Your task to perform on an android device: turn off improve location accuracy Image 0: 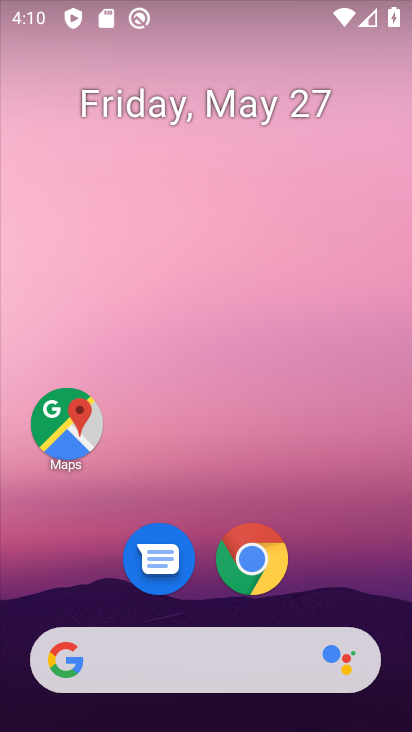
Step 0: drag from (366, 551) to (340, 322)
Your task to perform on an android device: turn off improve location accuracy Image 1: 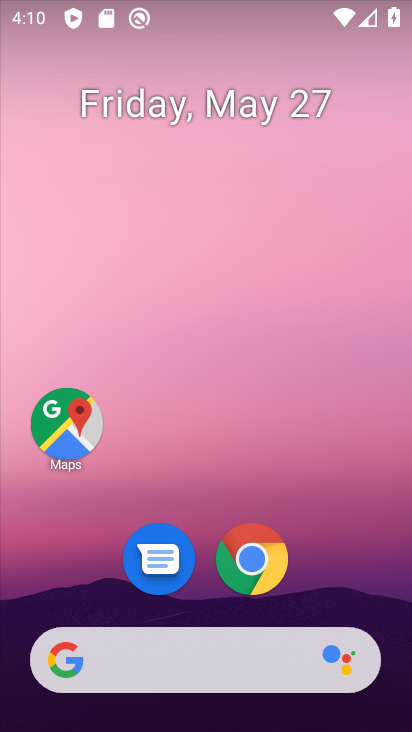
Step 1: drag from (390, 701) to (364, 288)
Your task to perform on an android device: turn off improve location accuracy Image 2: 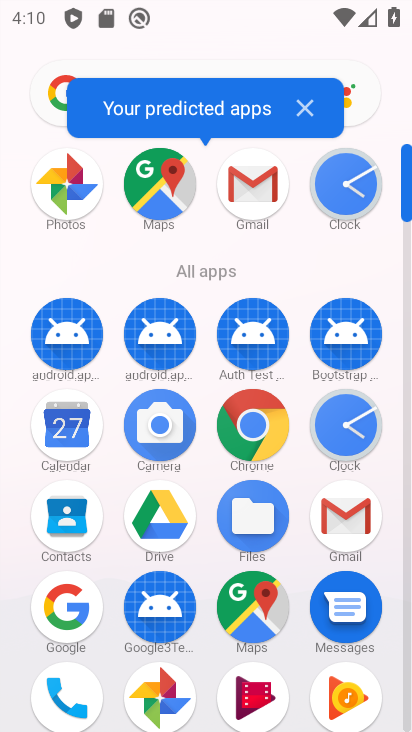
Step 2: drag from (200, 680) to (193, 298)
Your task to perform on an android device: turn off improve location accuracy Image 3: 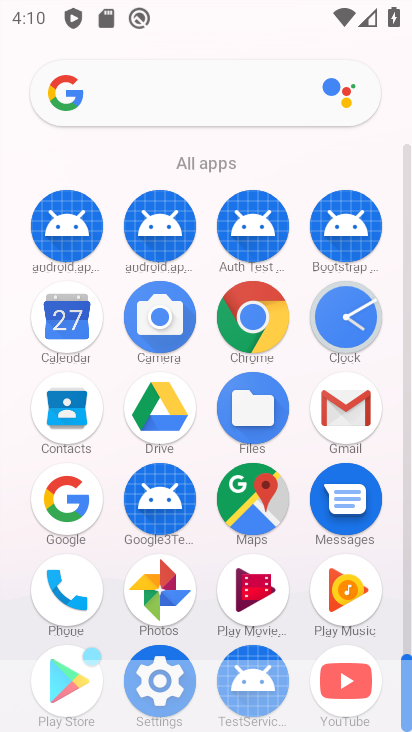
Step 3: click (168, 654)
Your task to perform on an android device: turn off improve location accuracy Image 4: 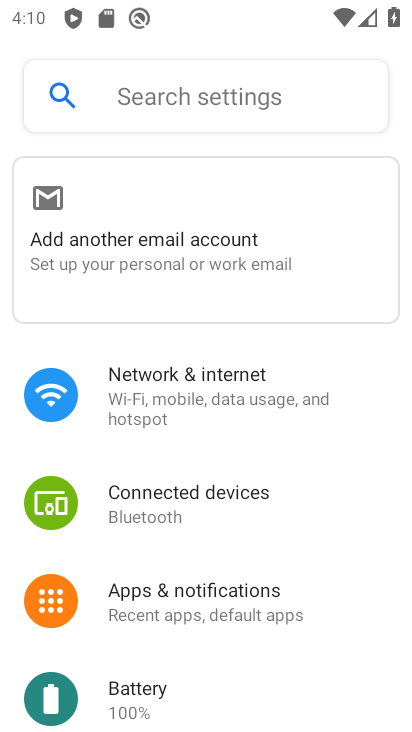
Step 4: drag from (245, 699) to (255, 362)
Your task to perform on an android device: turn off improve location accuracy Image 5: 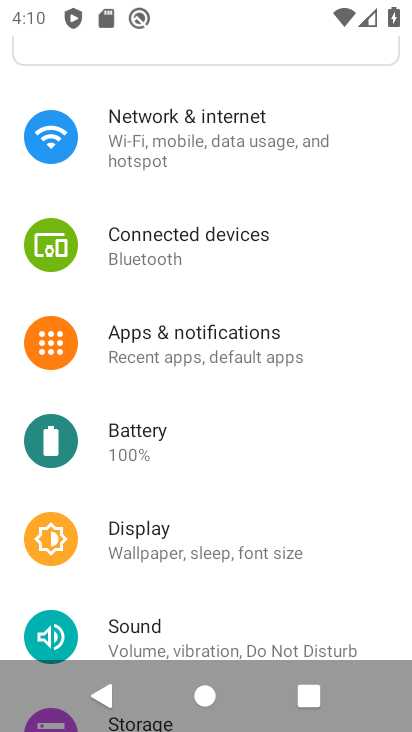
Step 5: drag from (232, 625) to (223, 338)
Your task to perform on an android device: turn off improve location accuracy Image 6: 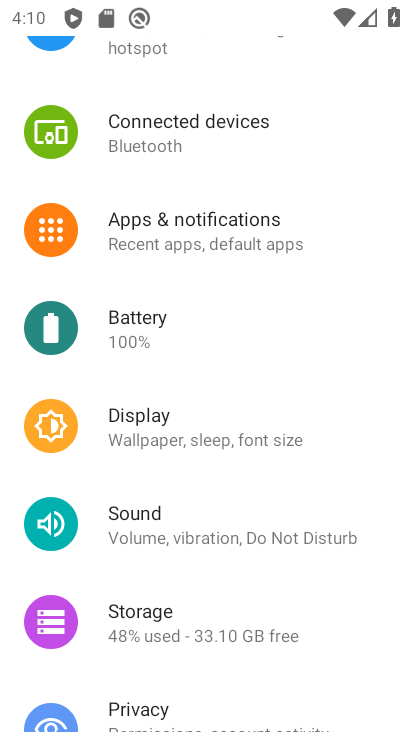
Step 6: drag from (231, 691) to (229, 385)
Your task to perform on an android device: turn off improve location accuracy Image 7: 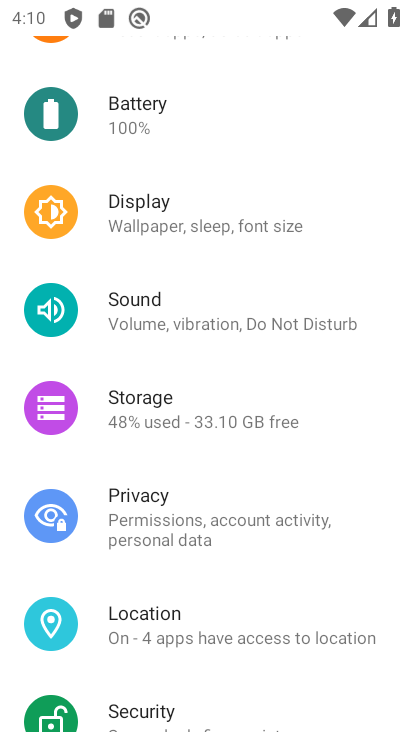
Step 7: click (170, 615)
Your task to perform on an android device: turn off improve location accuracy Image 8: 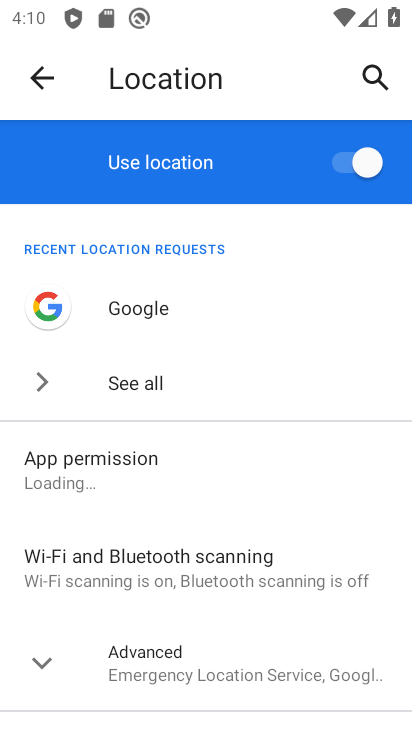
Step 8: drag from (280, 647) to (248, 315)
Your task to perform on an android device: turn off improve location accuracy Image 9: 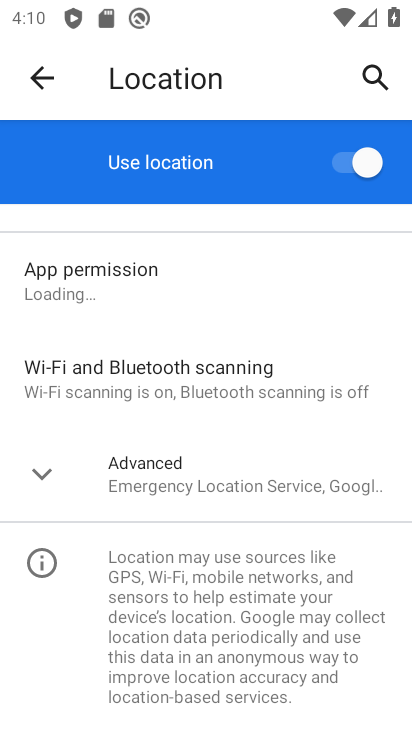
Step 9: click (38, 470)
Your task to perform on an android device: turn off improve location accuracy Image 10: 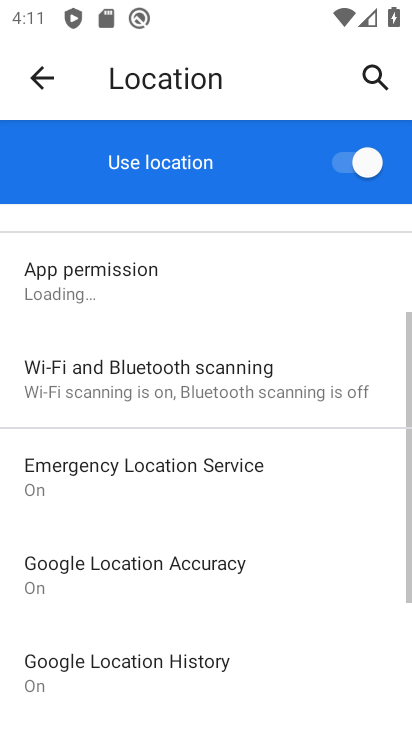
Step 10: drag from (295, 537) to (266, 287)
Your task to perform on an android device: turn off improve location accuracy Image 11: 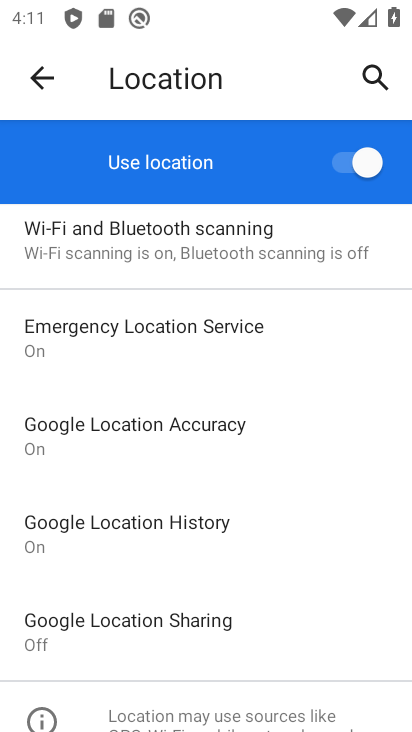
Step 11: click (78, 434)
Your task to perform on an android device: turn off improve location accuracy Image 12: 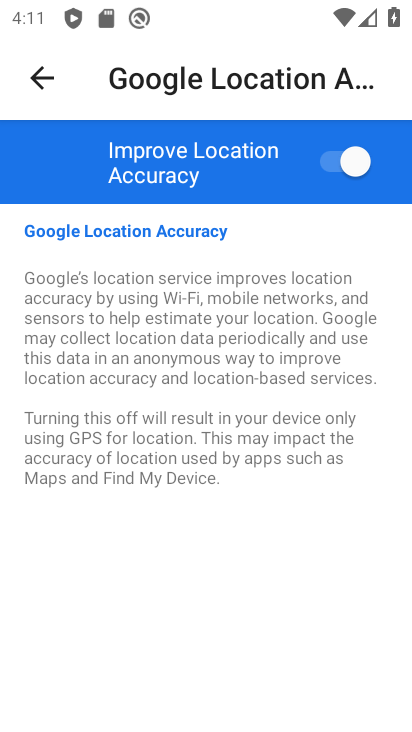
Step 12: click (328, 159)
Your task to perform on an android device: turn off improve location accuracy Image 13: 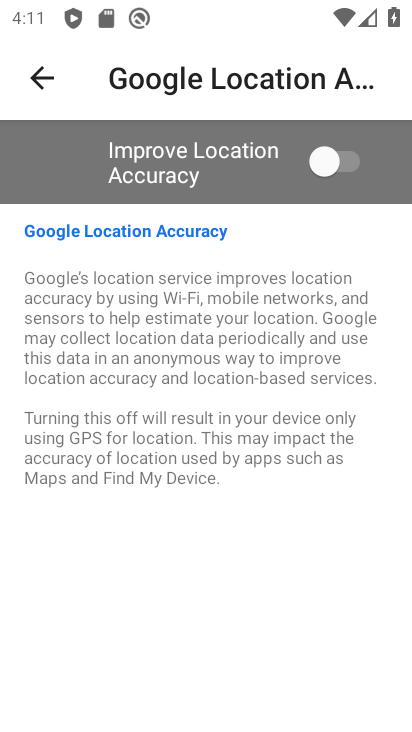
Step 13: task complete